Your task to perform on an android device: Empty the shopping cart on amazon.com. Add "logitech g903" to the cart on amazon.com, then select checkout. Image 0: 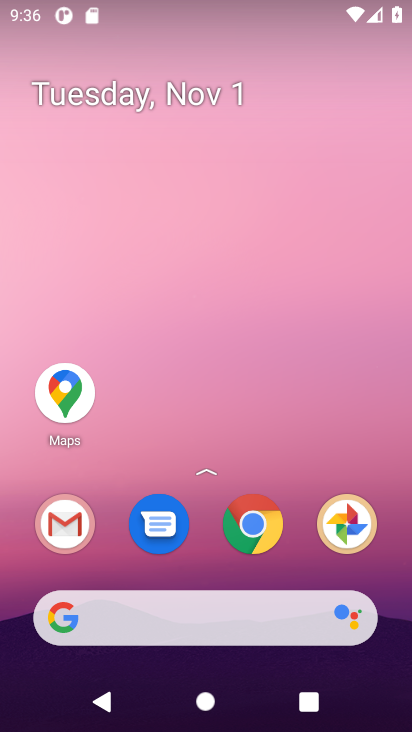
Step 0: press home button
Your task to perform on an android device: Empty the shopping cart on amazon.com. Add "logitech g903" to the cart on amazon.com, then select checkout. Image 1: 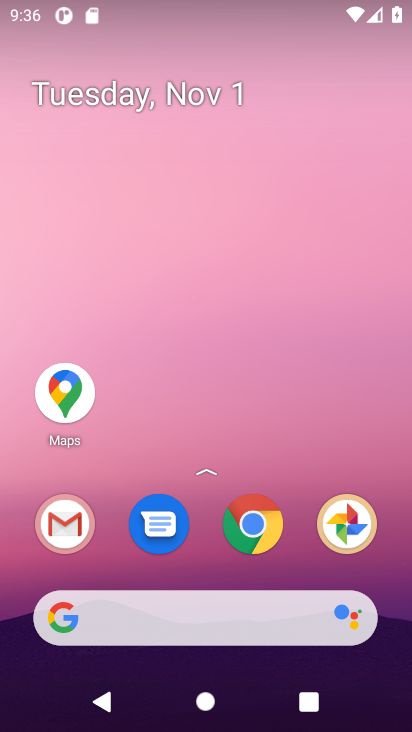
Step 1: click (96, 611)
Your task to perform on an android device: Empty the shopping cart on amazon.com. Add "logitech g903" to the cart on amazon.com, then select checkout. Image 2: 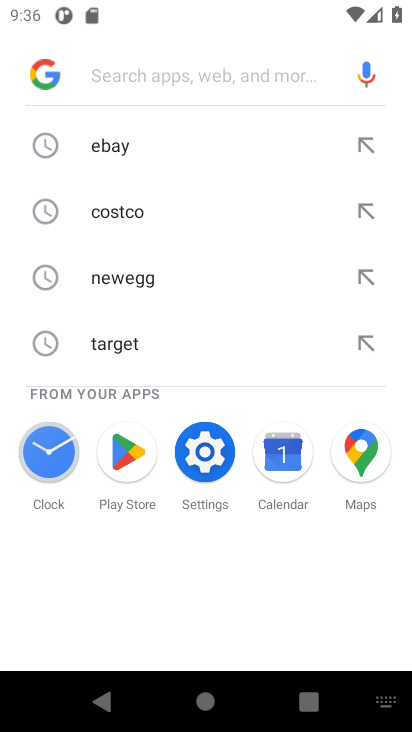
Step 2: type " amazon.com"
Your task to perform on an android device: Empty the shopping cart on amazon.com. Add "logitech g903" to the cart on amazon.com, then select checkout. Image 3: 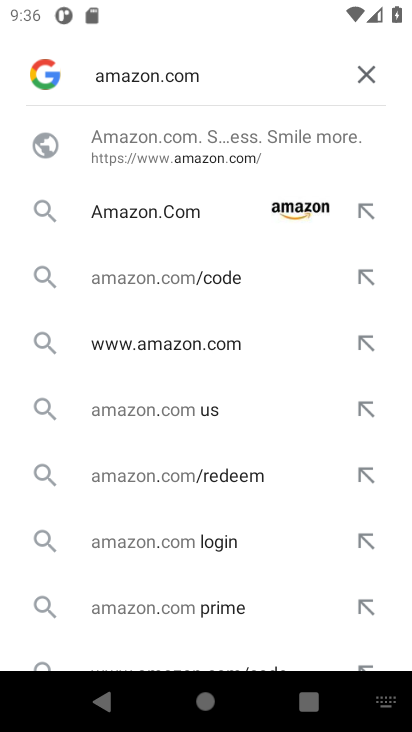
Step 3: press enter
Your task to perform on an android device: Empty the shopping cart on amazon.com. Add "logitech g903" to the cart on amazon.com, then select checkout. Image 4: 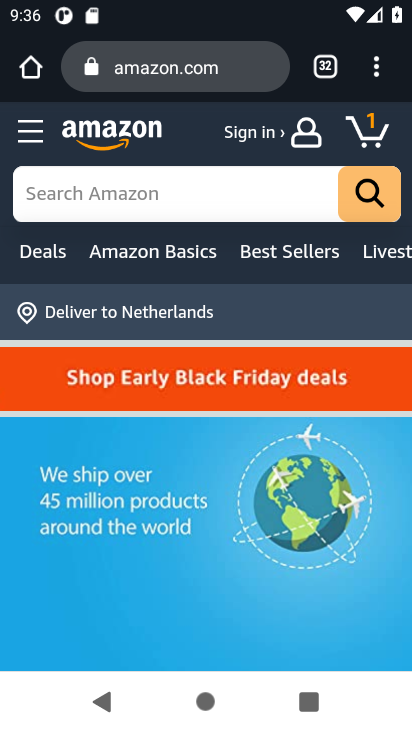
Step 4: click (368, 118)
Your task to perform on an android device: Empty the shopping cart on amazon.com. Add "logitech g903" to the cart on amazon.com, then select checkout. Image 5: 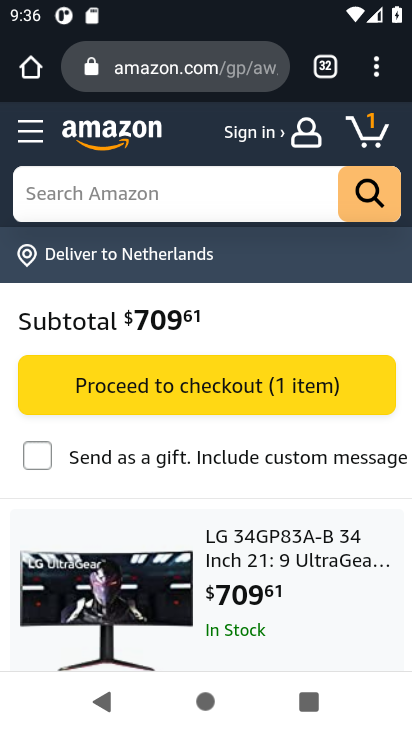
Step 5: drag from (142, 568) to (134, 296)
Your task to perform on an android device: Empty the shopping cart on amazon.com. Add "logitech g903" to the cart on amazon.com, then select checkout. Image 6: 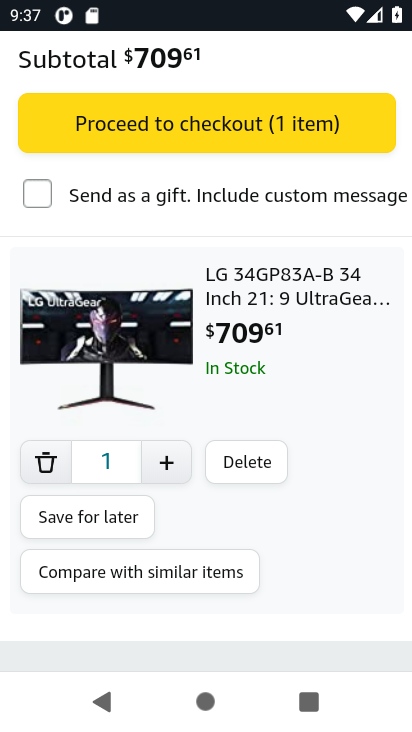
Step 6: click (44, 461)
Your task to perform on an android device: Empty the shopping cart on amazon.com. Add "logitech g903" to the cart on amazon.com, then select checkout. Image 7: 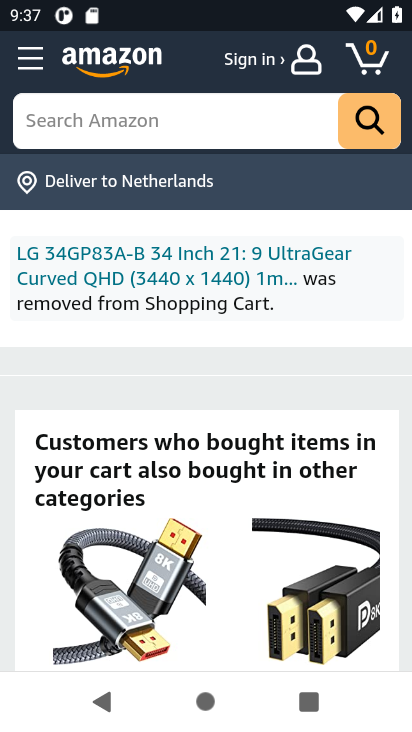
Step 7: click (145, 128)
Your task to perform on an android device: Empty the shopping cart on amazon.com. Add "logitech g903" to the cart on amazon.com, then select checkout. Image 8: 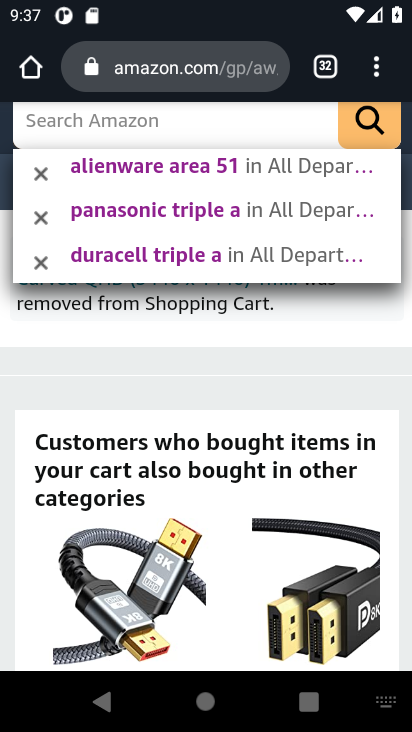
Step 8: type "logitech g903"
Your task to perform on an android device: Empty the shopping cart on amazon.com. Add "logitech g903" to the cart on amazon.com, then select checkout. Image 9: 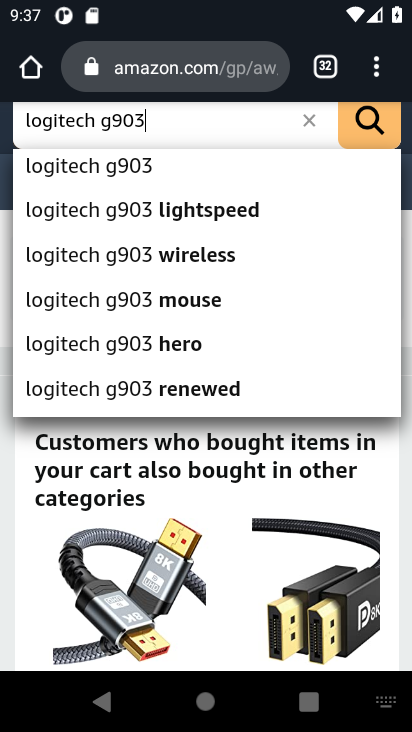
Step 9: press enter
Your task to perform on an android device: Empty the shopping cart on amazon.com. Add "logitech g903" to the cart on amazon.com, then select checkout. Image 10: 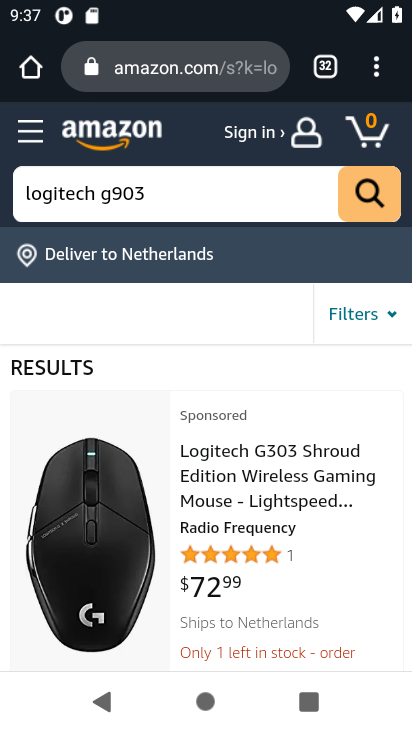
Step 10: drag from (288, 585) to (289, 407)
Your task to perform on an android device: Empty the shopping cart on amazon.com. Add "logitech g903" to the cart on amazon.com, then select checkout. Image 11: 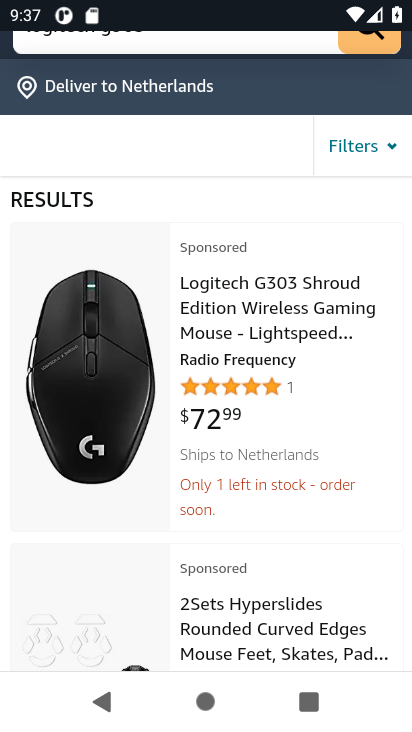
Step 11: drag from (271, 536) to (270, 358)
Your task to perform on an android device: Empty the shopping cart on amazon.com. Add "logitech g903" to the cart on amazon.com, then select checkout. Image 12: 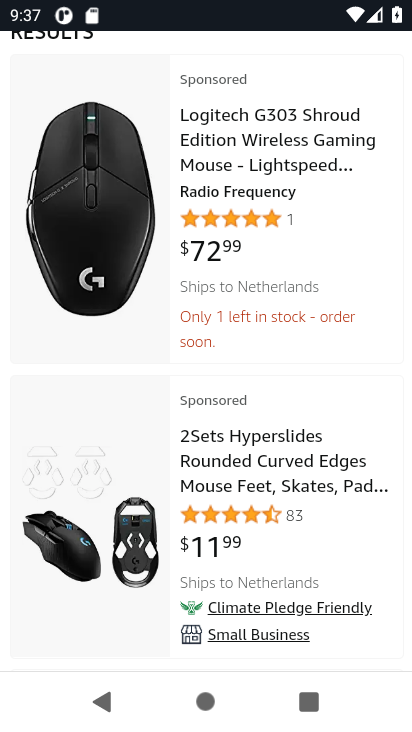
Step 12: drag from (252, 542) to (249, 319)
Your task to perform on an android device: Empty the shopping cart on amazon.com. Add "logitech g903" to the cart on amazon.com, then select checkout. Image 13: 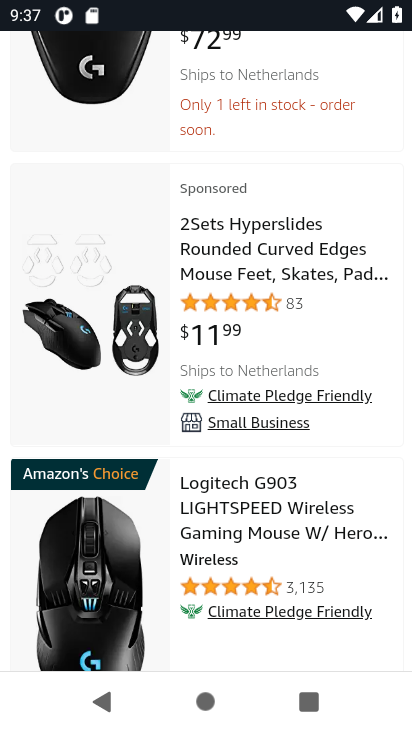
Step 13: click (280, 507)
Your task to perform on an android device: Empty the shopping cart on amazon.com. Add "logitech g903" to the cart on amazon.com, then select checkout. Image 14: 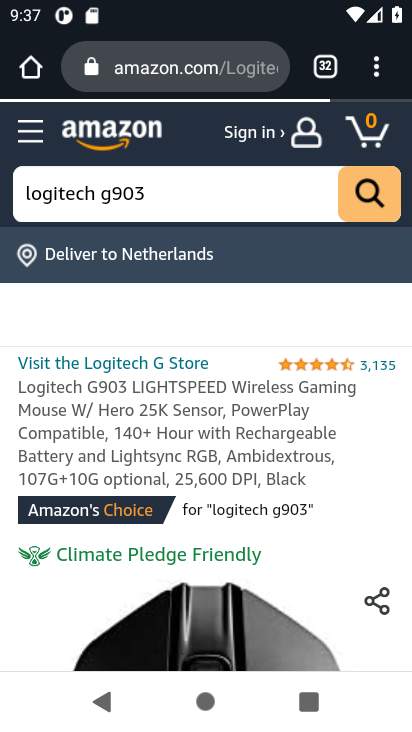
Step 14: drag from (256, 583) to (242, 350)
Your task to perform on an android device: Empty the shopping cart on amazon.com. Add "logitech g903" to the cart on amazon.com, then select checkout. Image 15: 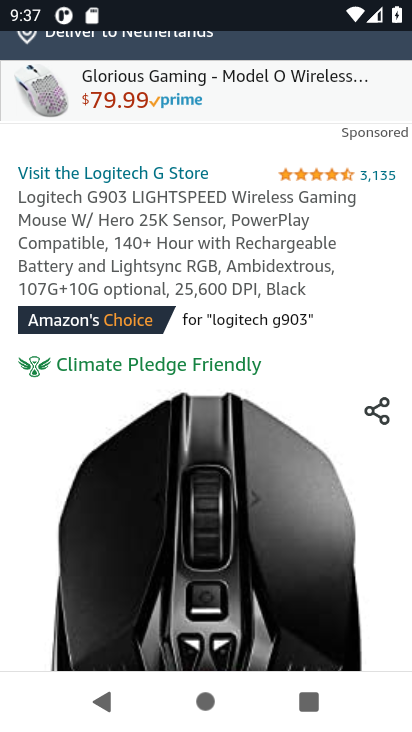
Step 15: drag from (235, 532) to (235, 195)
Your task to perform on an android device: Empty the shopping cart on amazon.com. Add "logitech g903" to the cart on amazon.com, then select checkout. Image 16: 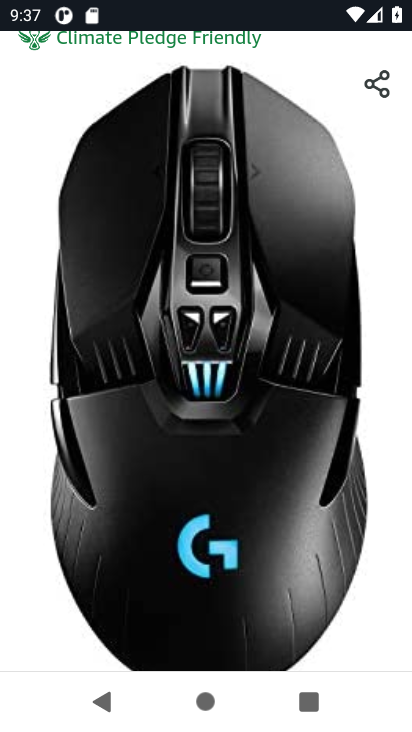
Step 16: drag from (209, 603) to (202, 135)
Your task to perform on an android device: Empty the shopping cart on amazon.com. Add "logitech g903" to the cart on amazon.com, then select checkout. Image 17: 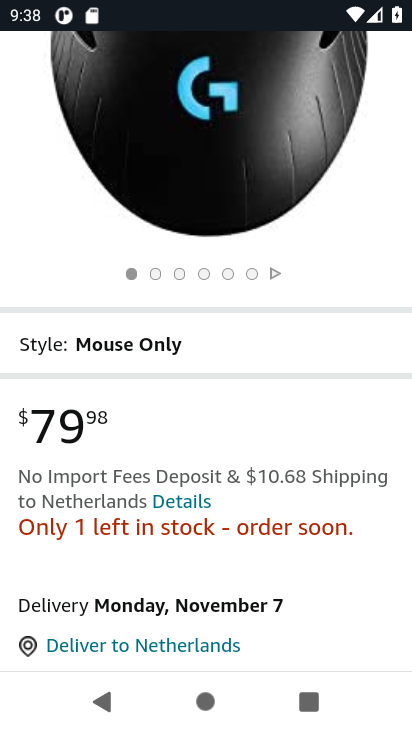
Step 17: drag from (189, 519) to (180, 227)
Your task to perform on an android device: Empty the shopping cart on amazon.com. Add "logitech g903" to the cart on amazon.com, then select checkout. Image 18: 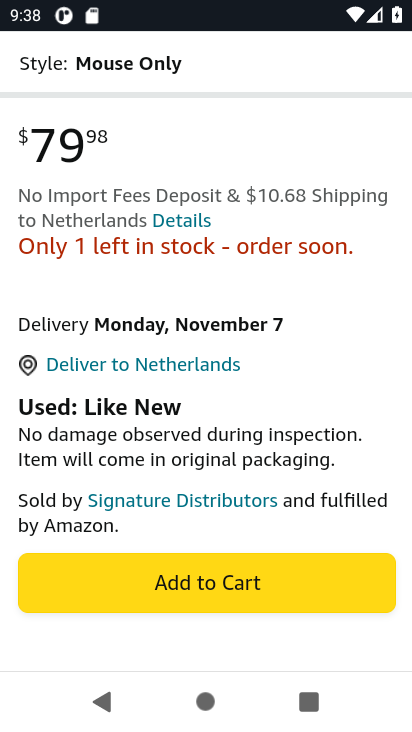
Step 18: click (186, 584)
Your task to perform on an android device: Empty the shopping cart on amazon.com. Add "logitech g903" to the cart on amazon.com, then select checkout. Image 19: 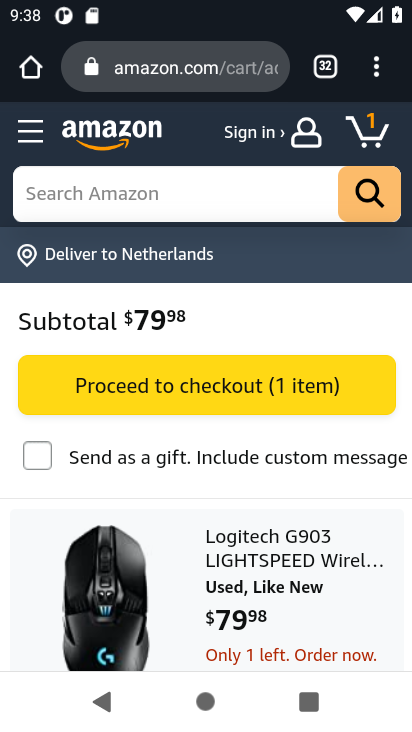
Step 19: click (204, 392)
Your task to perform on an android device: Empty the shopping cart on amazon.com. Add "logitech g903" to the cart on amazon.com, then select checkout. Image 20: 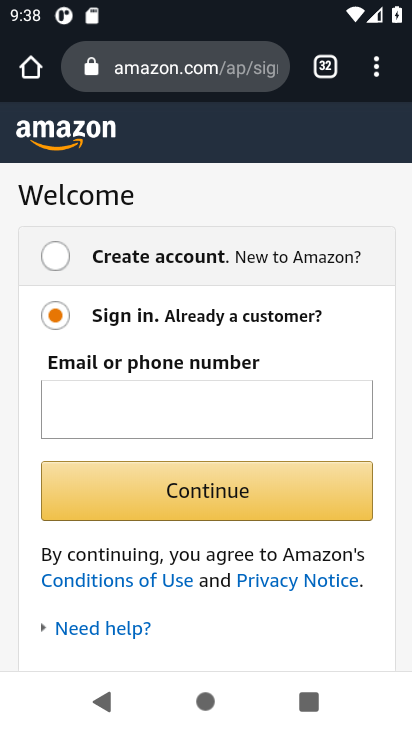
Step 20: task complete